Your task to perform on an android device: clear history in the chrome app Image 0: 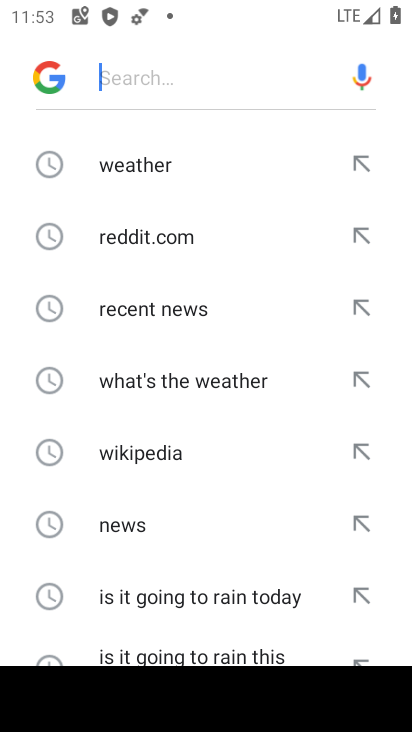
Step 0: press back button
Your task to perform on an android device: clear history in the chrome app Image 1: 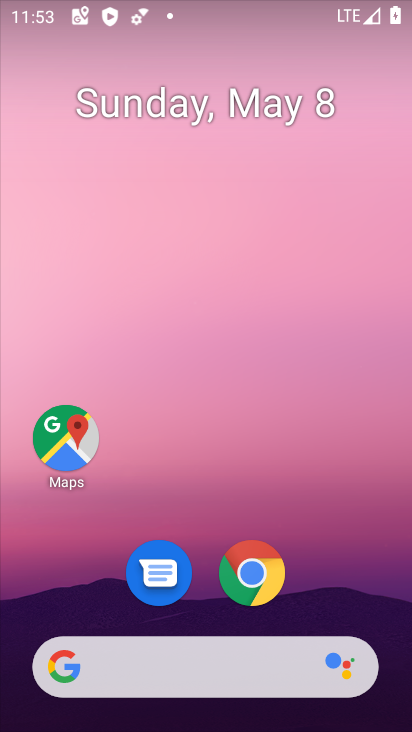
Step 1: drag from (347, 528) to (229, 6)
Your task to perform on an android device: clear history in the chrome app Image 2: 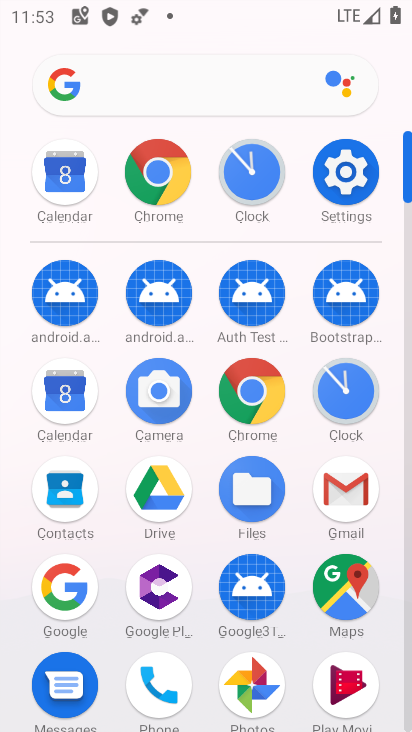
Step 2: drag from (6, 546) to (16, 179)
Your task to perform on an android device: clear history in the chrome app Image 3: 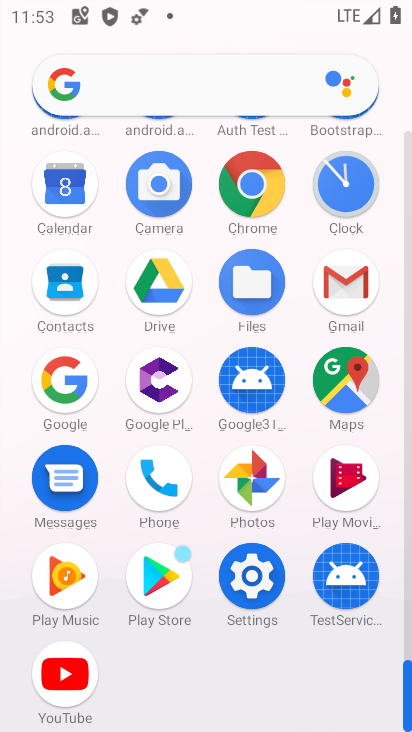
Step 3: click (247, 183)
Your task to perform on an android device: clear history in the chrome app Image 4: 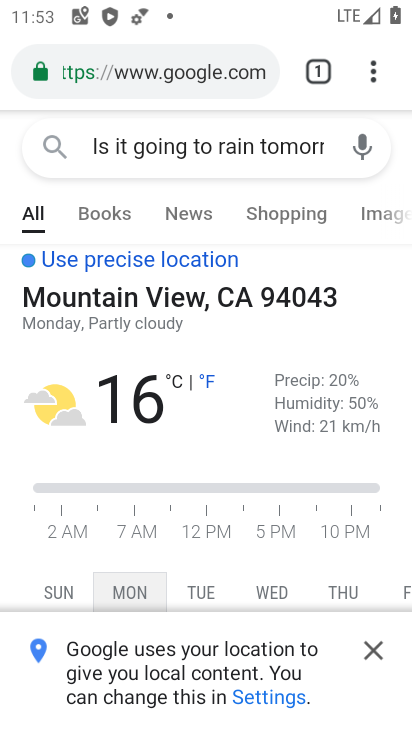
Step 4: drag from (372, 63) to (145, 408)
Your task to perform on an android device: clear history in the chrome app Image 5: 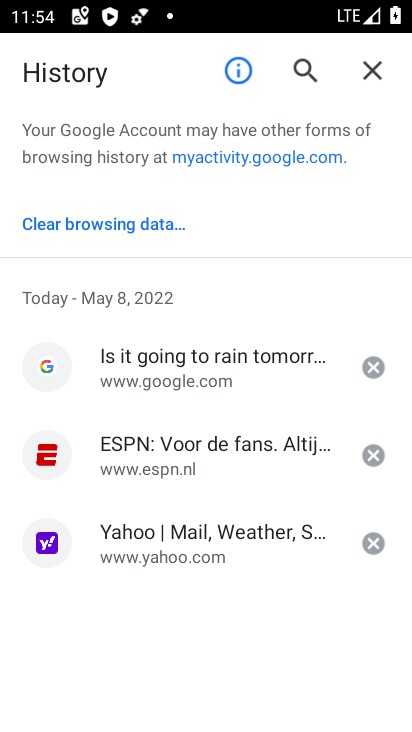
Step 5: click (112, 220)
Your task to perform on an android device: clear history in the chrome app Image 6: 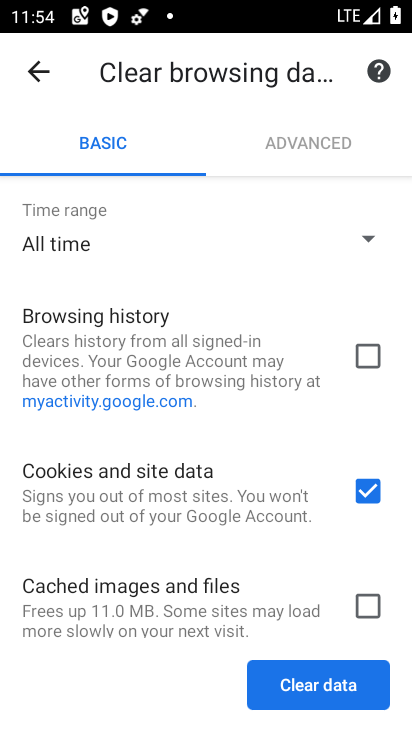
Step 6: click (369, 365)
Your task to perform on an android device: clear history in the chrome app Image 7: 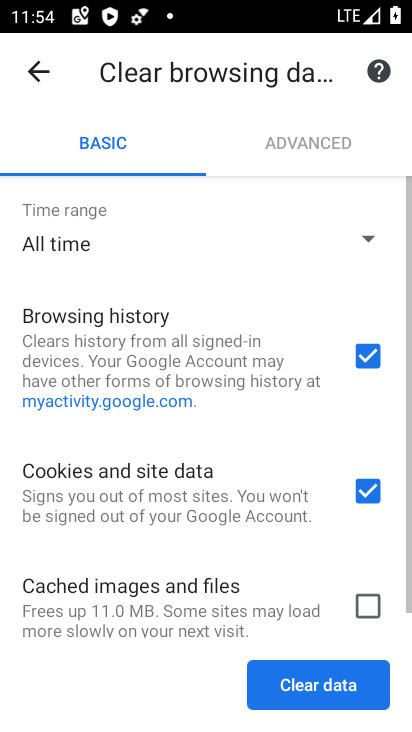
Step 7: click (375, 499)
Your task to perform on an android device: clear history in the chrome app Image 8: 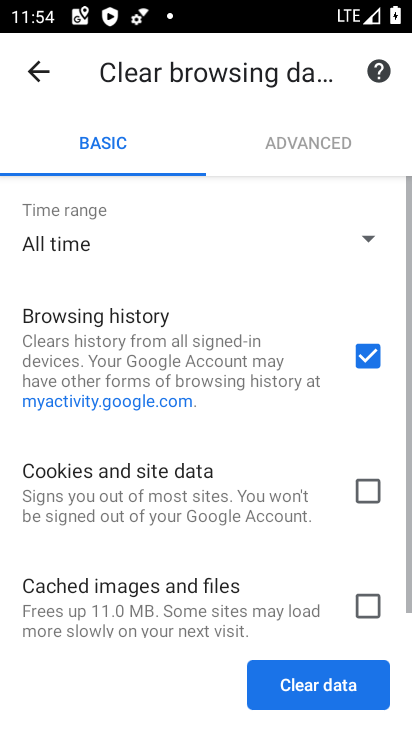
Step 8: click (327, 692)
Your task to perform on an android device: clear history in the chrome app Image 9: 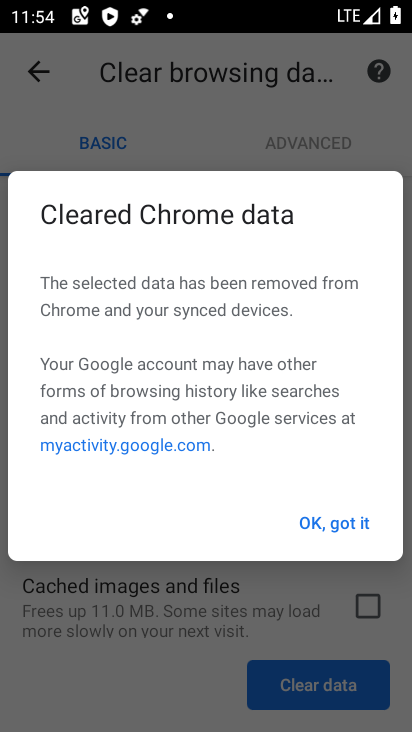
Step 9: click (338, 523)
Your task to perform on an android device: clear history in the chrome app Image 10: 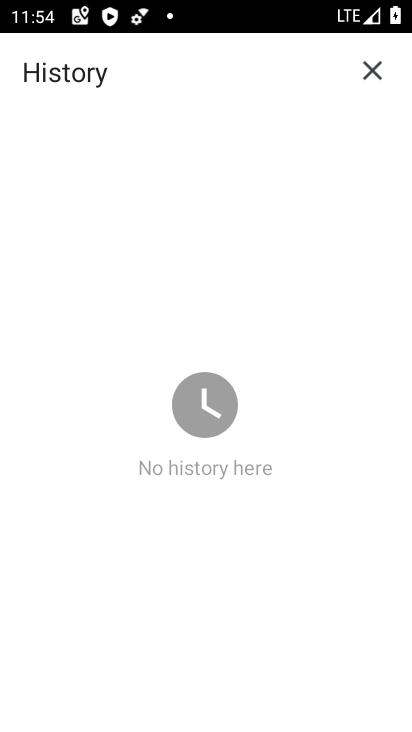
Step 10: task complete